Your task to perform on an android device: Open sound settings Image 0: 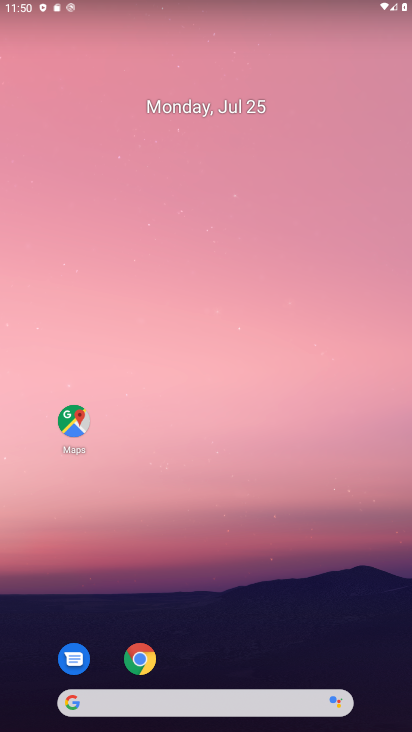
Step 0: press home button
Your task to perform on an android device: Open sound settings Image 1: 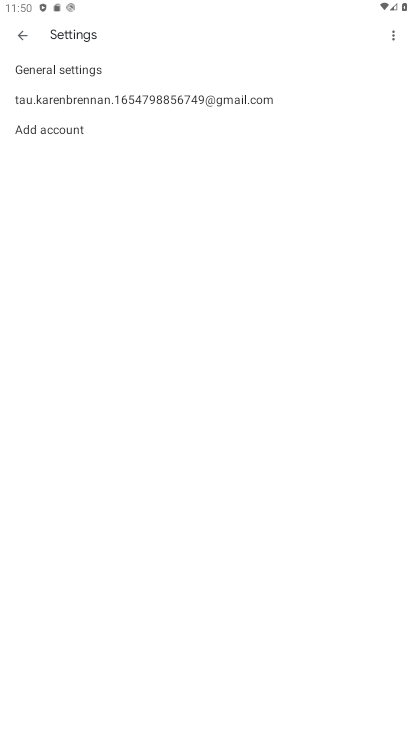
Step 1: drag from (251, 678) to (220, 140)
Your task to perform on an android device: Open sound settings Image 2: 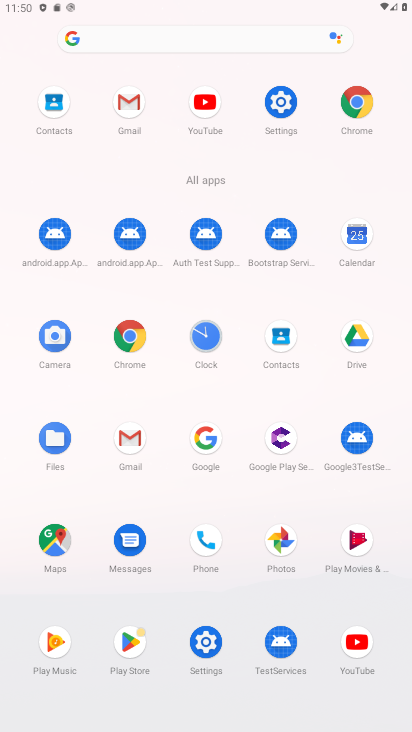
Step 2: click (270, 121)
Your task to perform on an android device: Open sound settings Image 3: 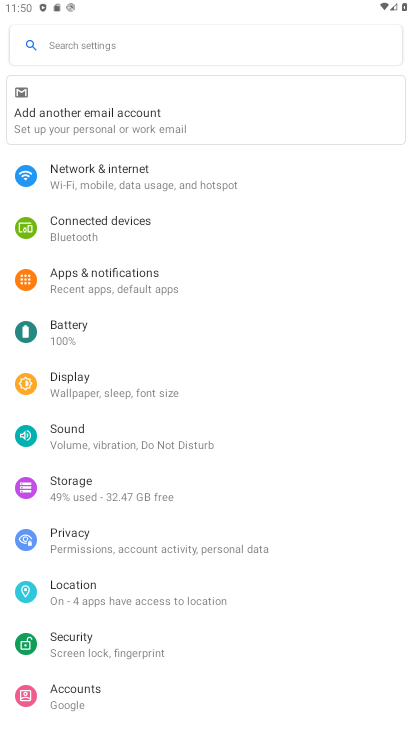
Step 3: click (35, 428)
Your task to perform on an android device: Open sound settings Image 4: 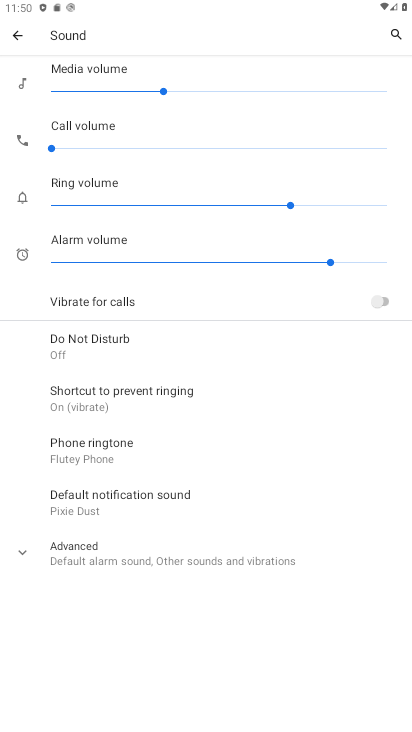
Step 4: task complete